Your task to perform on an android device: Open maps Image 0: 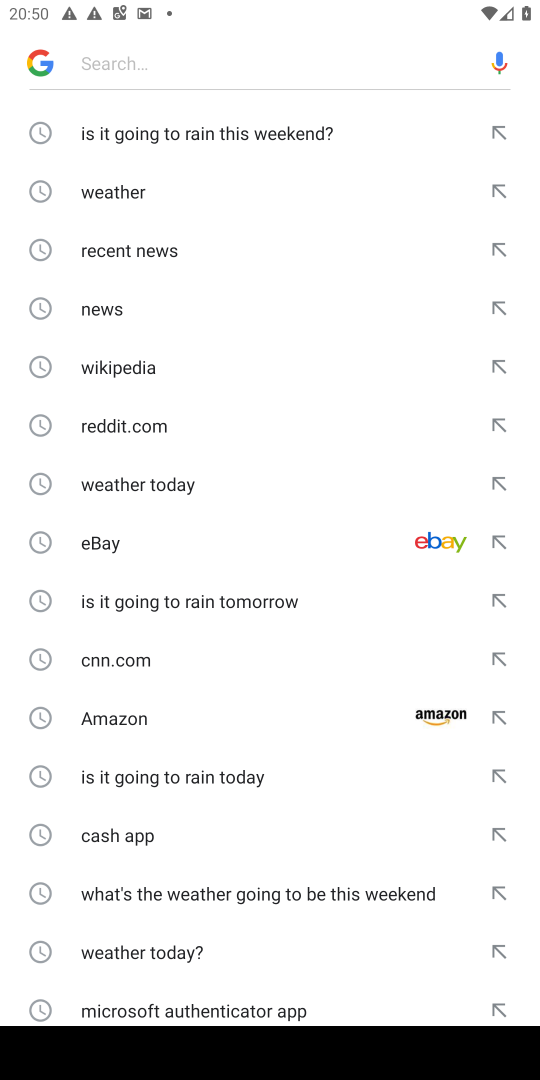
Step 0: press home button
Your task to perform on an android device: Open maps Image 1: 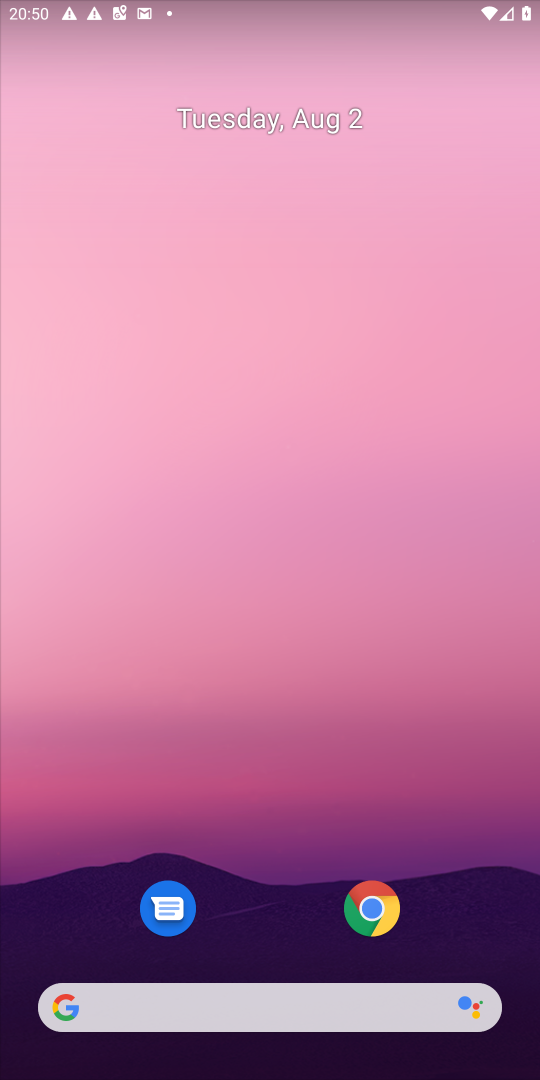
Step 1: drag from (220, 1075) to (265, 157)
Your task to perform on an android device: Open maps Image 2: 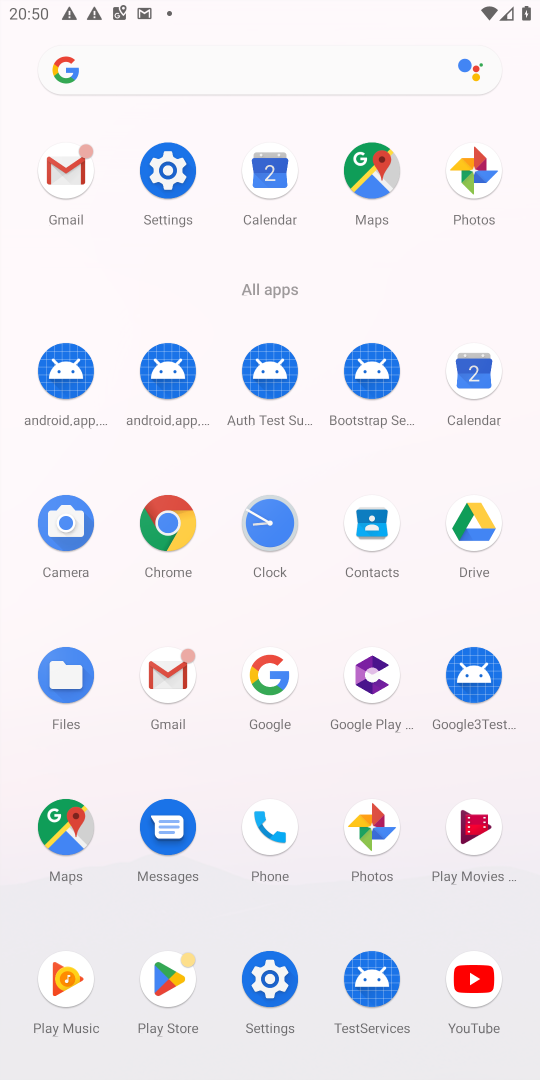
Step 2: click (406, 169)
Your task to perform on an android device: Open maps Image 3: 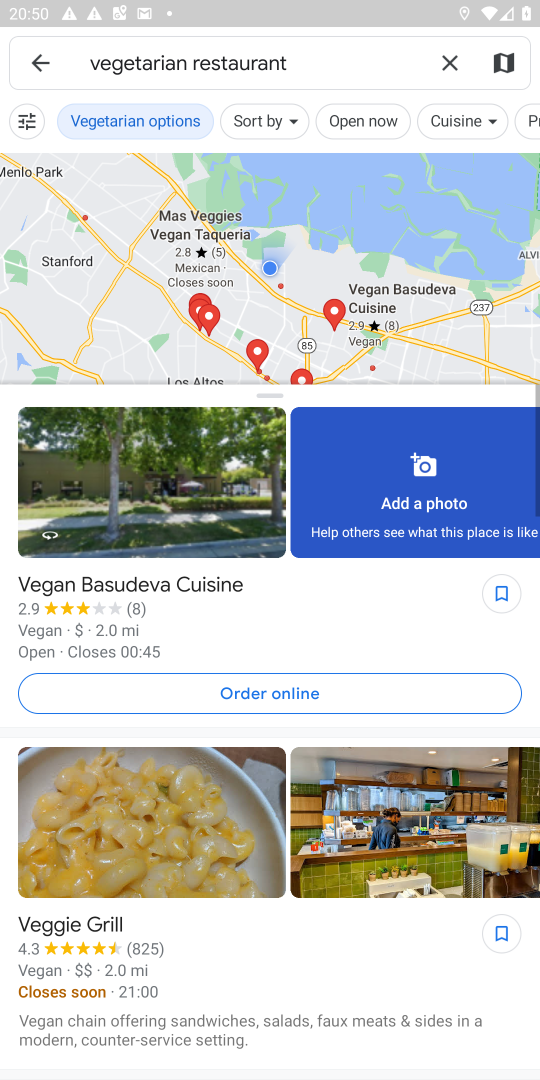
Step 3: task complete